Your task to perform on an android device: Open accessibility settings Image 0: 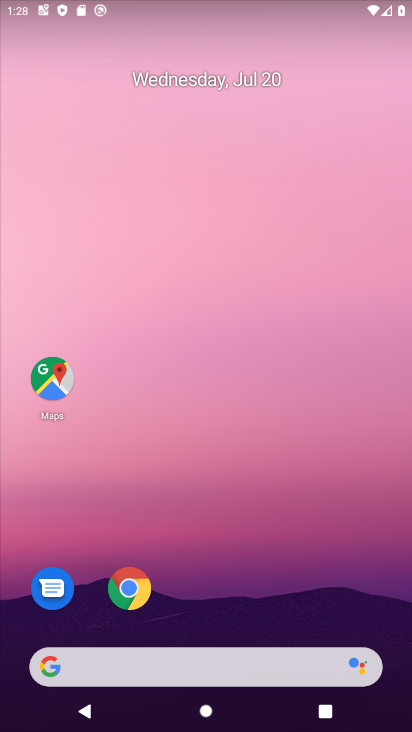
Step 0: drag from (56, 659) to (212, 127)
Your task to perform on an android device: Open accessibility settings Image 1: 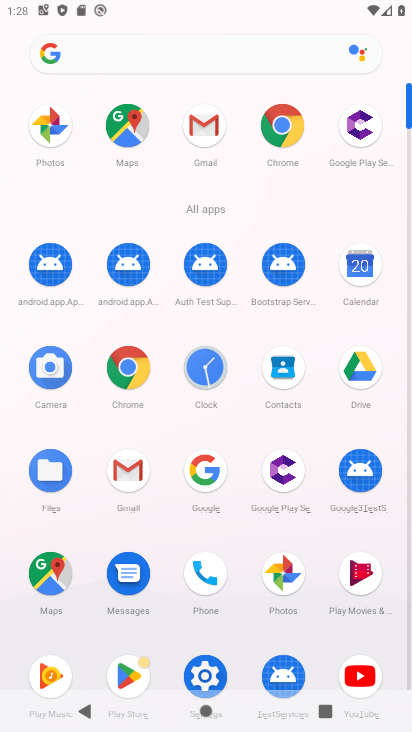
Step 1: click (200, 667)
Your task to perform on an android device: Open accessibility settings Image 2: 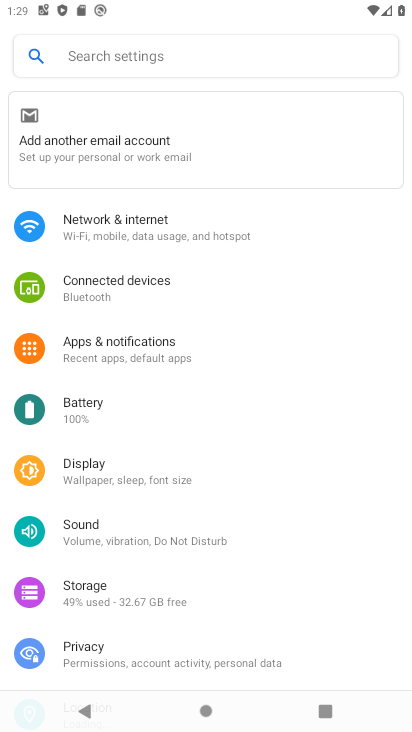
Step 2: drag from (300, 576) to (345, 26)
Your task to perform on an android device: Open accessibility settings Image 3: 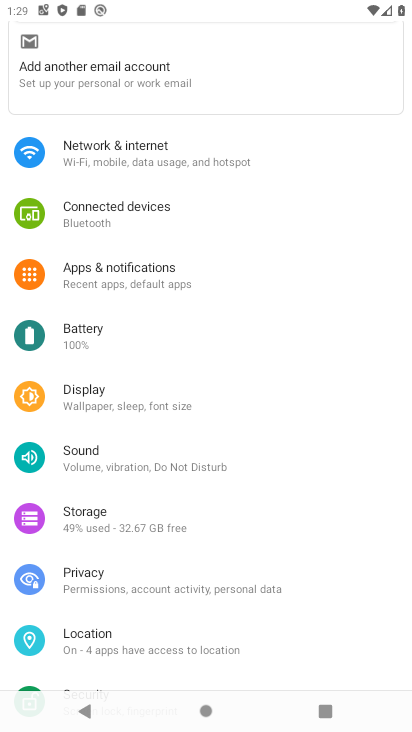
Step 3: drag from (318, 592) to (344, 133)
Your task to perform on an android device: Open accessibility settings Image 4: 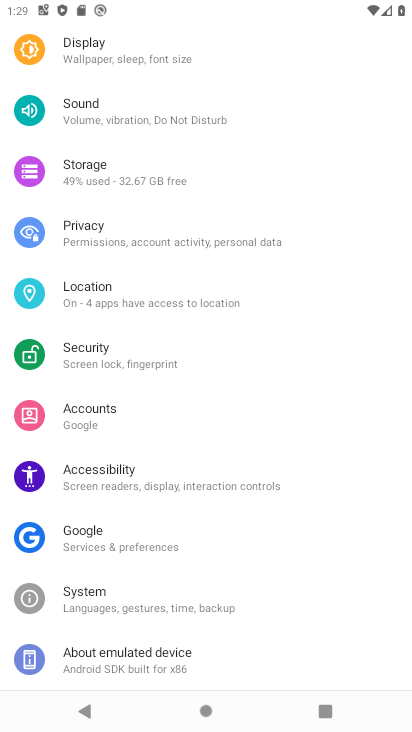
Step 4: click (110, 478)
Your task to perform on an android device: Open accessibility settings Image 5: 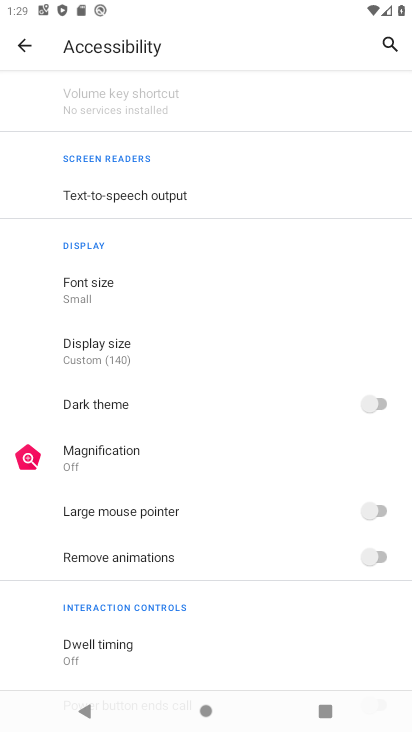
Step 5: task complete